Your task to perform on an android device: toggle notification dots Image 0: 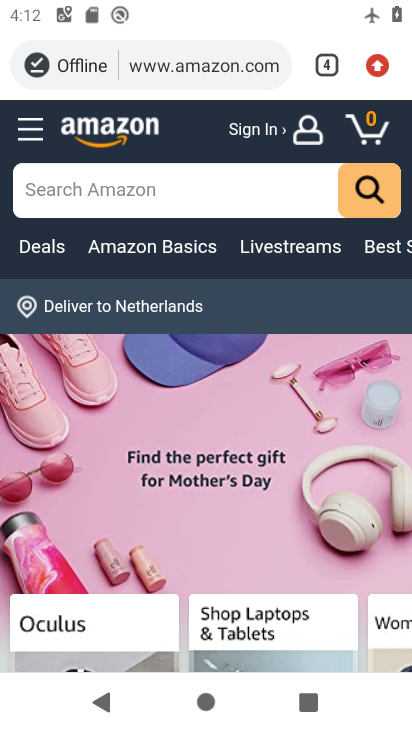
Step 0: press home button
Your task to perform on an android device: toggle notification dots Image 1: 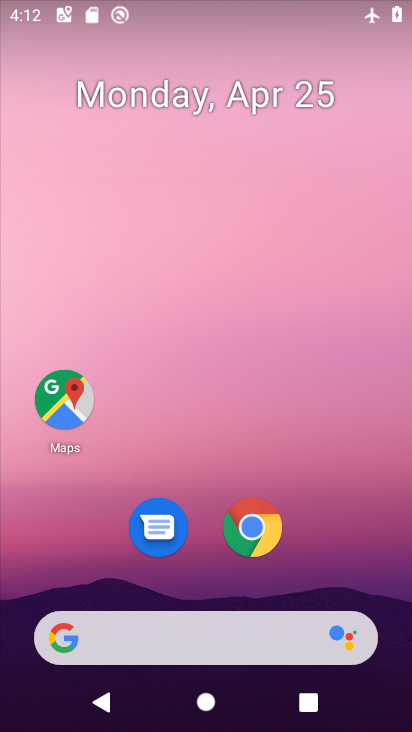
Step 1: drag from (375, 602) to (336, 148)
Your task to perform on an android device: toggle notification dots Image 2: 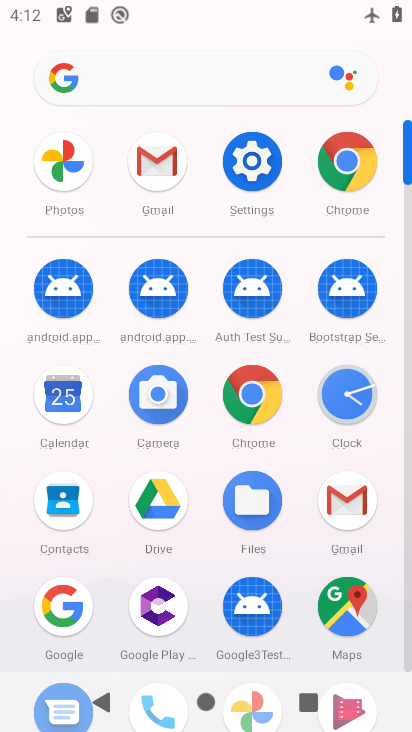
Step 2: click (404, 651)
Your task to perform on an android device: toggle notification dots Image 3: 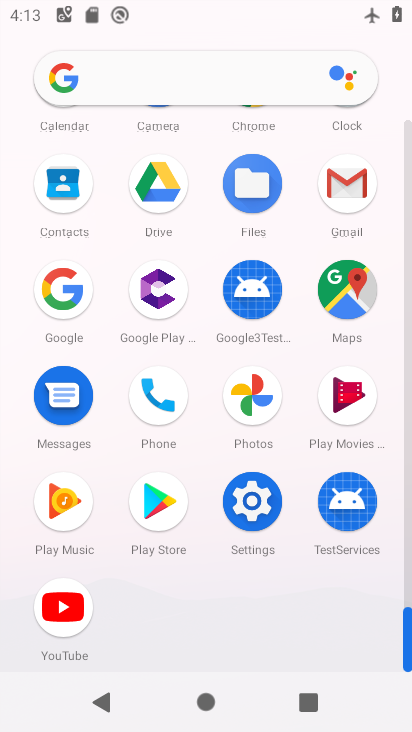
Step 3: click (251, 501)
Your task to perform on an android device: toggle notification dots Image 4: 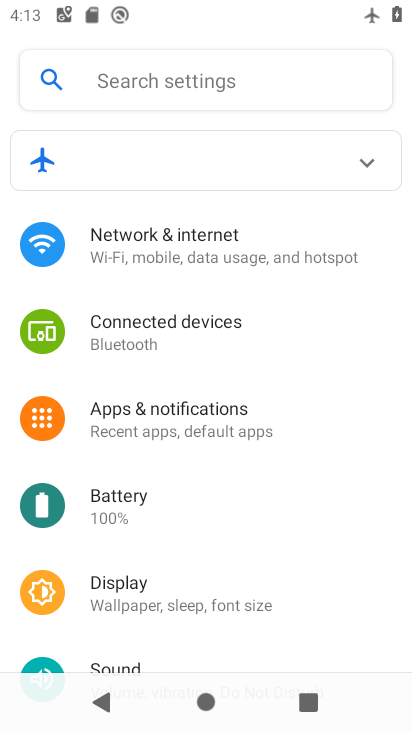
Step 4: click (182, 437)
Your task to perform on an android device: toggle notification dots Image 5: 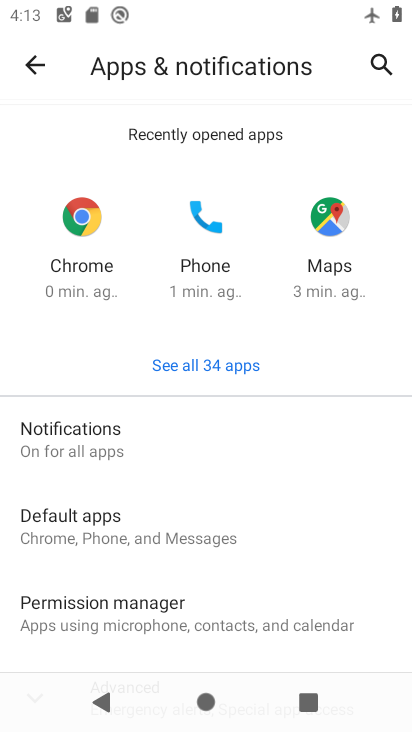
Step 5: click (82, 441)
Your task to perform on an android device: toggle notification dots Image 6: 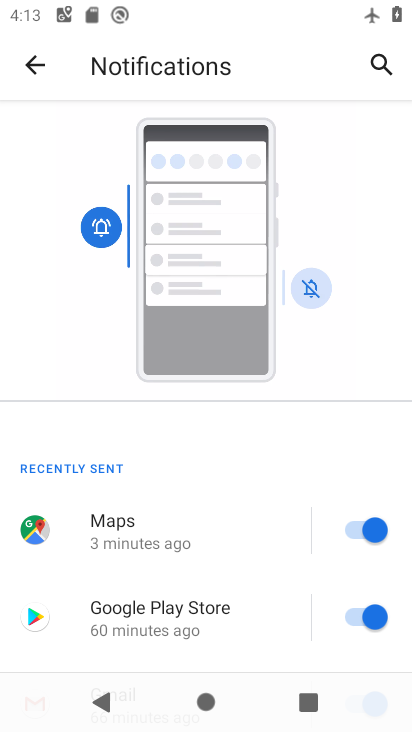
Step 6: drag from (279, 565) to (255, 236)
Your task to perform on an android device: toggle notification dots Image 7: 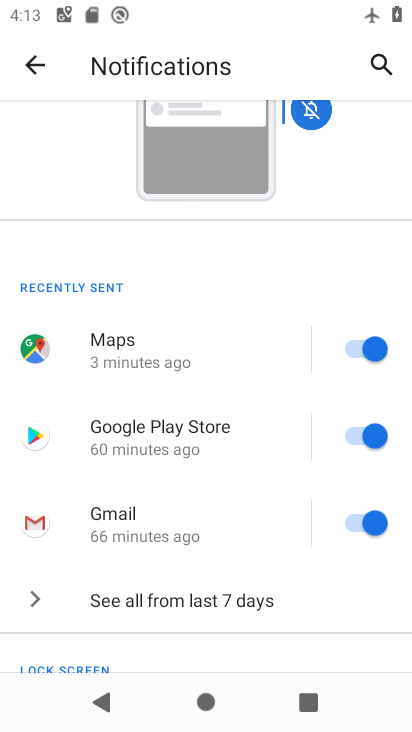
Step 7: drag from (298, 568) to (287, 283)
Your task to perform on an android device: toggle notification dots Image 8: 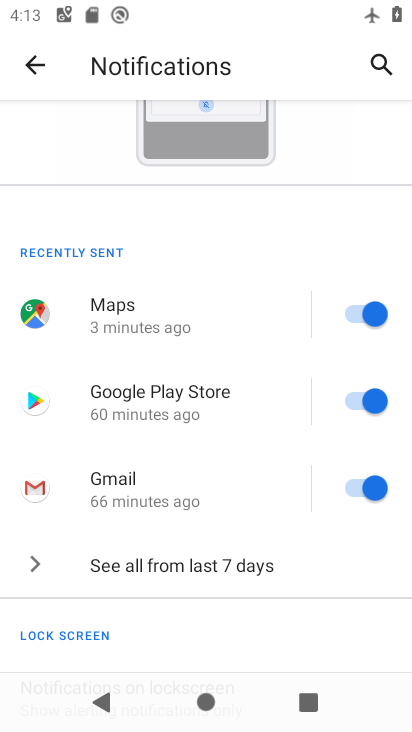
Step 8: drag from (274, 558) to (283, 252)
Your task to perform on an android device: toggle notification dots Image 9: 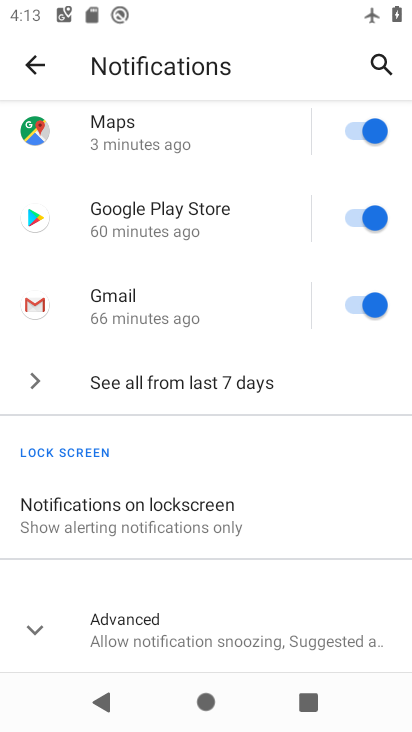
Step 9: click (57, 616)
Your task to perform on an android device: toggle notification dots Image 10: 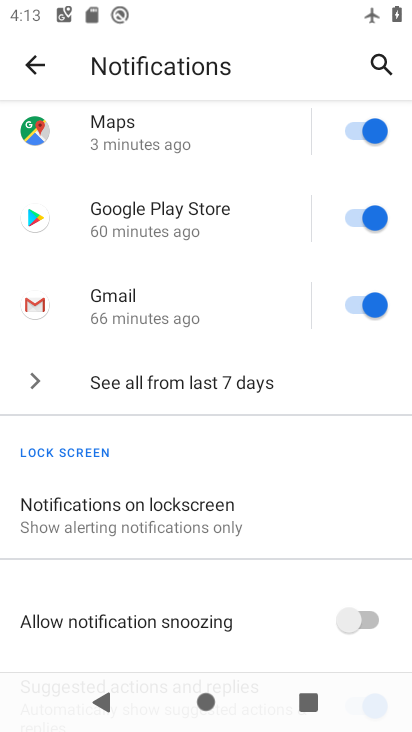
Step 10: click (200, 182)
Your task to perform on an android device: toggle notification dots Image 11: 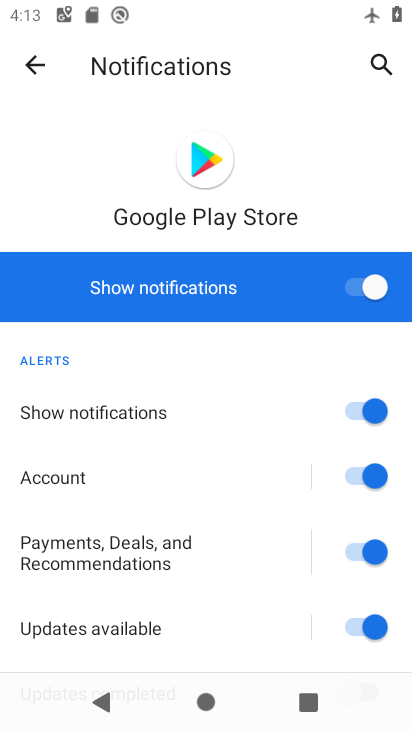
Step 11: press back button
Your task to perform on an android device: toggle notification dots Image 12: 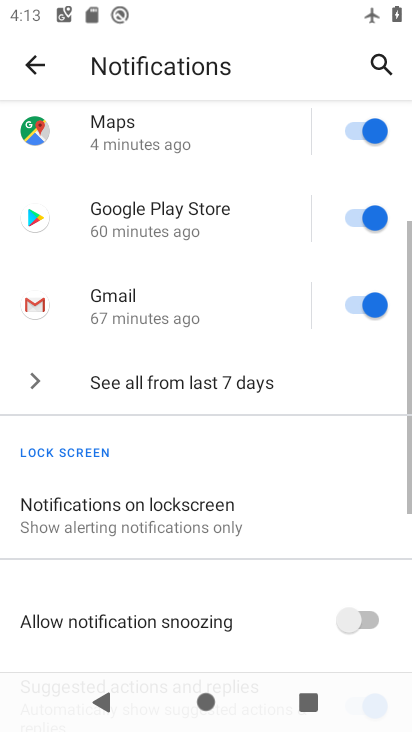
Step 12: drag from (283, 571) to (246, 155)
Your task to perform on an android device: toggle notification dots Image 13: 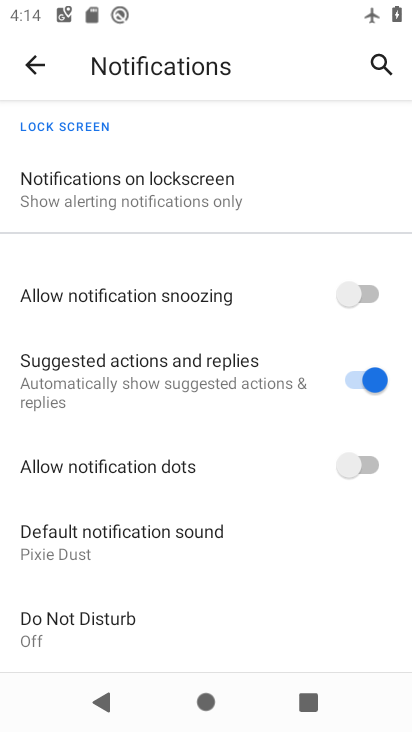
Step 13: click (371, 460)
Your task to perform on an android device: toggle notification dots Image 14: 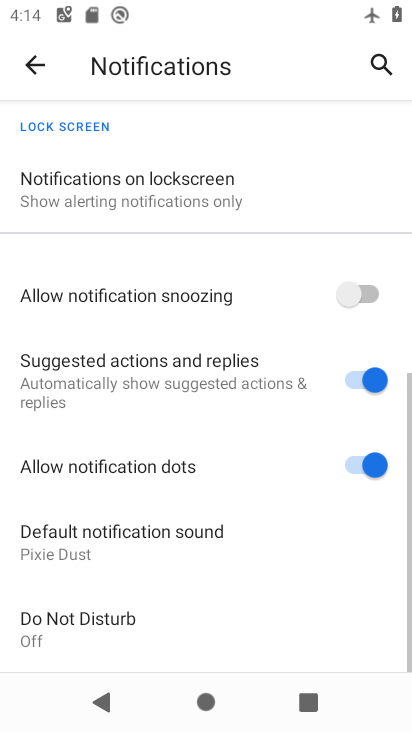
Step 14: task complete